Your task to perform on an android device: Go to settings Image 0: 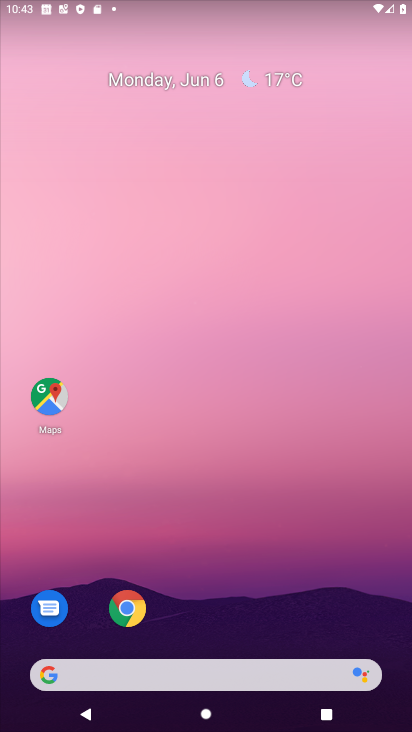
Step 0: drag from (217, 631) to (192, 167)
Your task to perform on an android device: Go to settings Image 1: 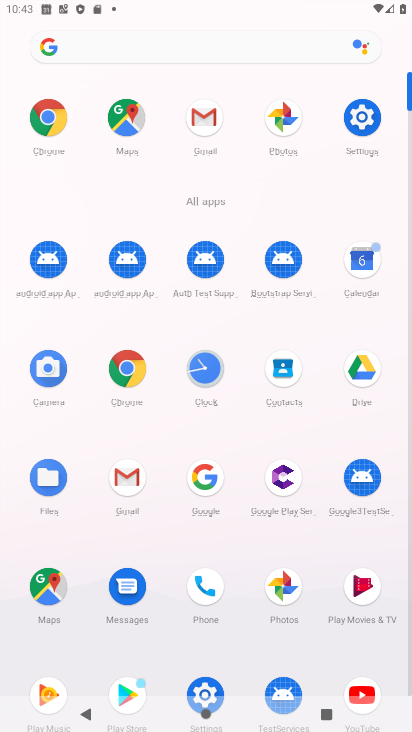
Step 1: click (363, 117)
Your task to perform on an android device: Go to settings Image 2: 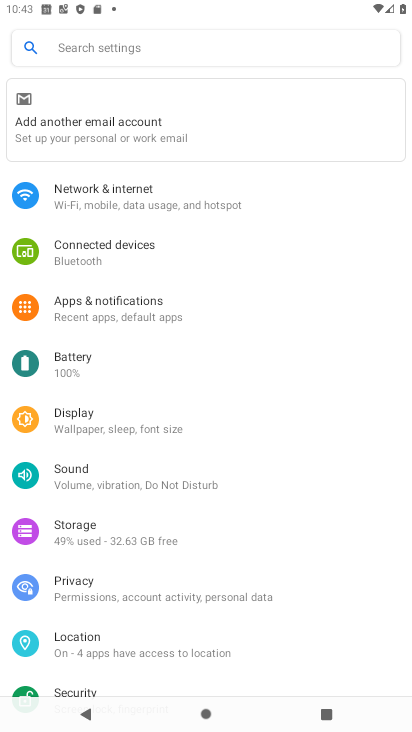
Step 2: task complete